Your task to perform on an android device: Add "bose soundsport free" to the cart on amazon, then select checkout. Image 0: 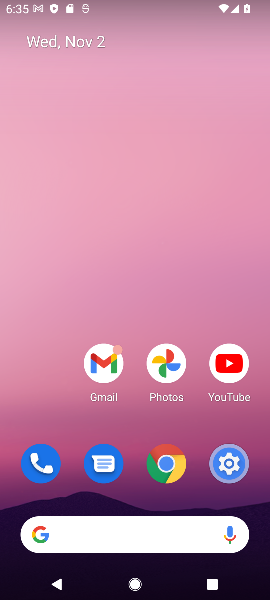
Step 0: click (163, 468)
Your task to perform on an android device: Add "bose soundsport free" to the cart on amazon, then select checkout. Image 1: 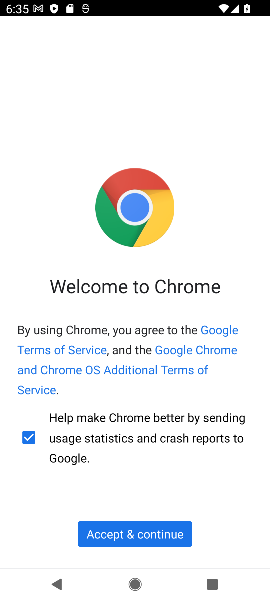
Step 1: click (132, 537)
Your task to perform on an android device: Add "bose soundsport free" to the cart on amazon, then select checkout. Image 2: 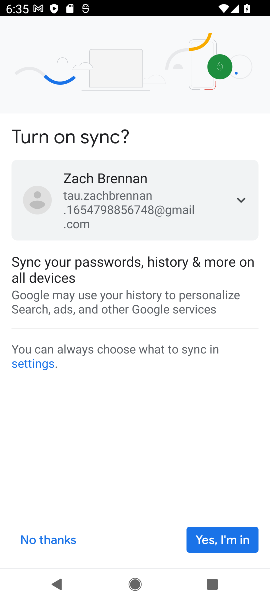
Step 2: click (39, 542)
Your task to perform on an android device: Add "bose soundsport free" to the cart on amazon, then select checkout. Image 3: 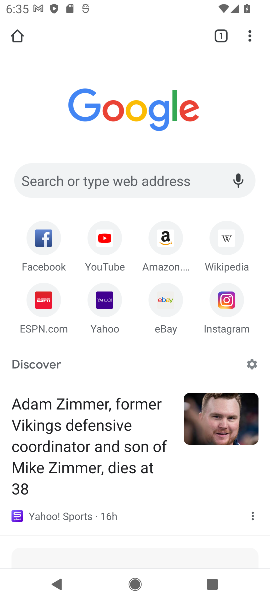
Step 3: click (157, 257)
Your task to perform on an android device: Add "bose soundsport free" to the cart on amazon, then select checkout. Image 4: 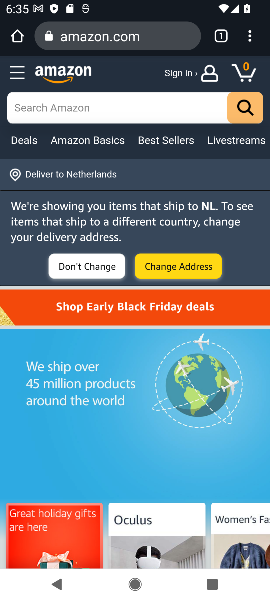
Step 4: click (75, 118)
Your task to perform on an android device: Add "bose soundsport free" to the cart on amazon, then select checkout. Image 5: 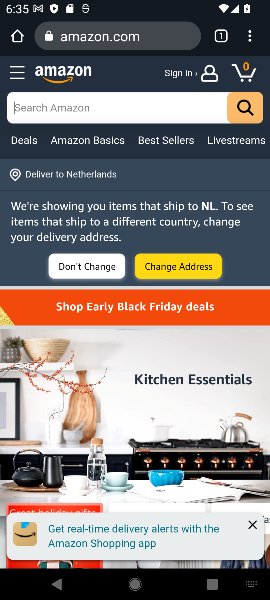
Step 5: type "bose soundsport free"
Your task to perform on an android device: Add "bose soundsport free" to the cart on amazon, then select checkout. Image 6: 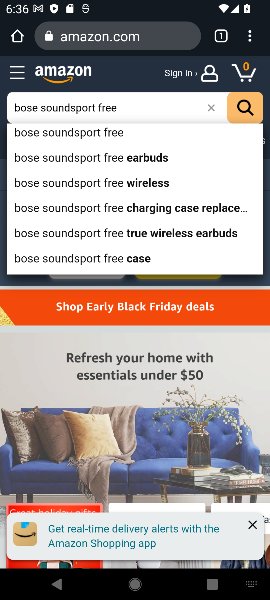
Step 6: click (71, 135)
Your task to perform on an android device: Add "bose soundsport free" to the cart on amazon, then select checkout. Image 7: 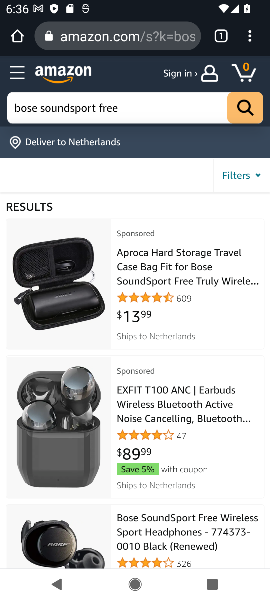
Step 7: click (75, 302)
Your task to perform on an android device: Add "bose soundsport free" to the cart on amazon, then select checkout. Image 8: 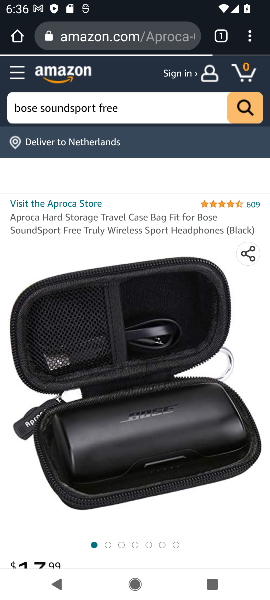
Step 8: drag from (124, 417) to (148, 124)
Your task to perform on an android device: Add "bose soundsport free" to the cart on amazon, then select checkout. Image 9: 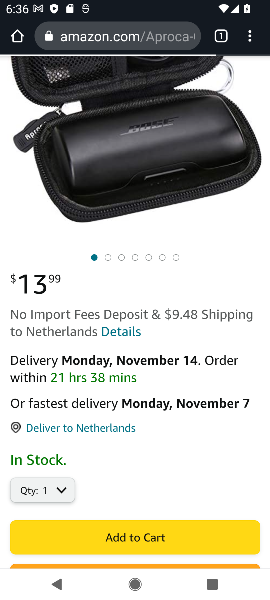
Step 9: drag from (181, 423) to (200, 217)
Your task to perform on an android device: Add "bose soundsport free" to the cart on amazon, then select checkout. Image 10: 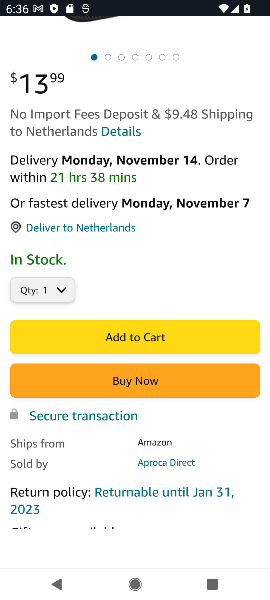
Step 10: click (117, 339)
Your task to perform on an android device: Add "bose soundsport free" to the cart on amazon, then select checkout. Image 11: 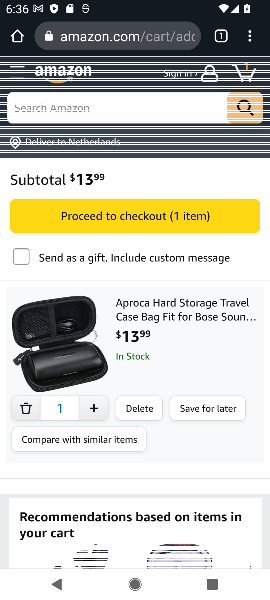
Step 11: click (123, 222)
Your task to perform on an android device: Add "bose soundsport free" to the cart on amazon, then select checkout. Image 12: 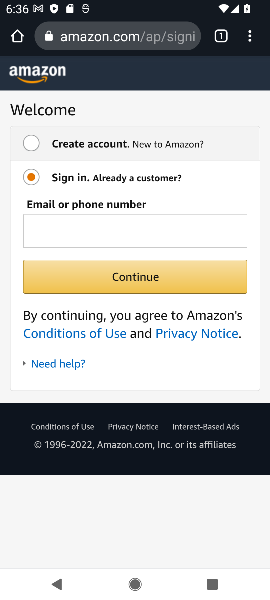
Step 12: task complete